Your task to perform on an android device: Search for razer deathadder on bestbuy.com, select the first entry, add it to the cart, then select checkout. Image 0: 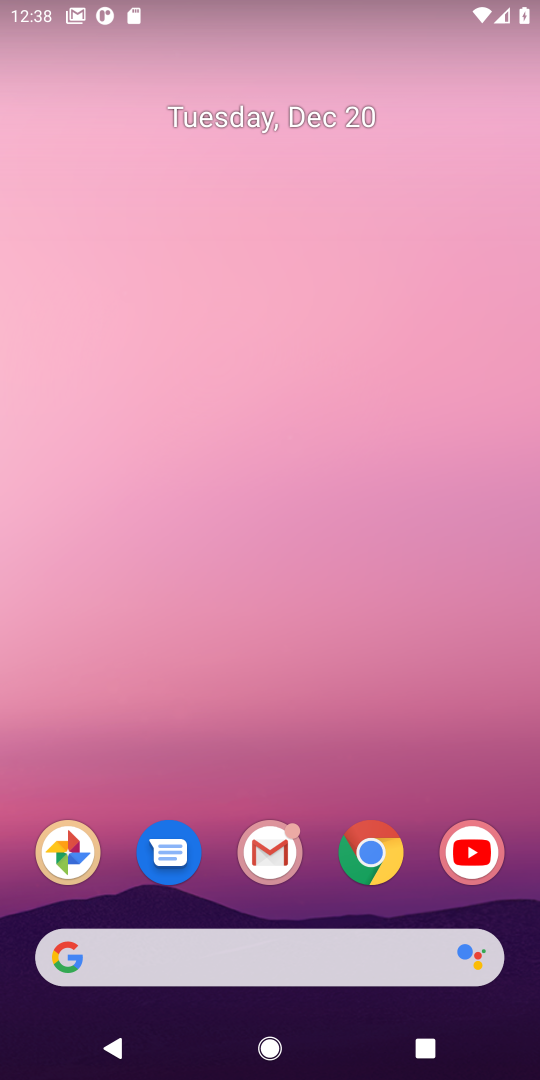
Step 0: click (376, 851)
Your task to perform on an android device: Search for razer deathadder on bestbuy.com, select the first entry, add it to the cart, then select checkout. Image 1: 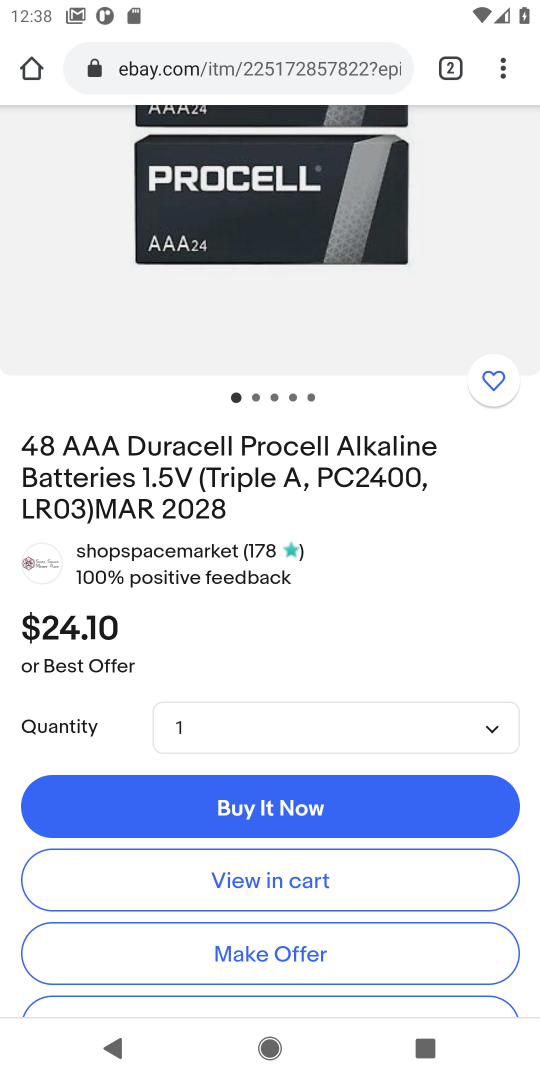
Step 1: click (214, 67)
Your task to perform on an android device: Search for razer deathadder on bestbuy.com, select the first entry, add it to the cart, then select checkout. Image 2: 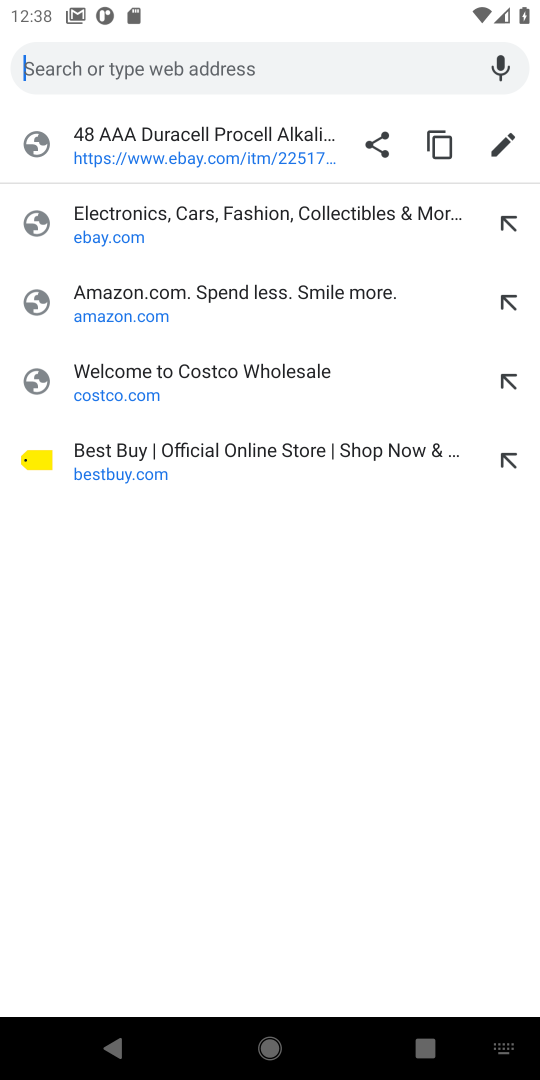
Step 2: click (104, 454)
Your task to perform on an android device: Search for razer deathadder on bestbuy.com, select the first entry, add it to the cart, then select checkout. Image 3: 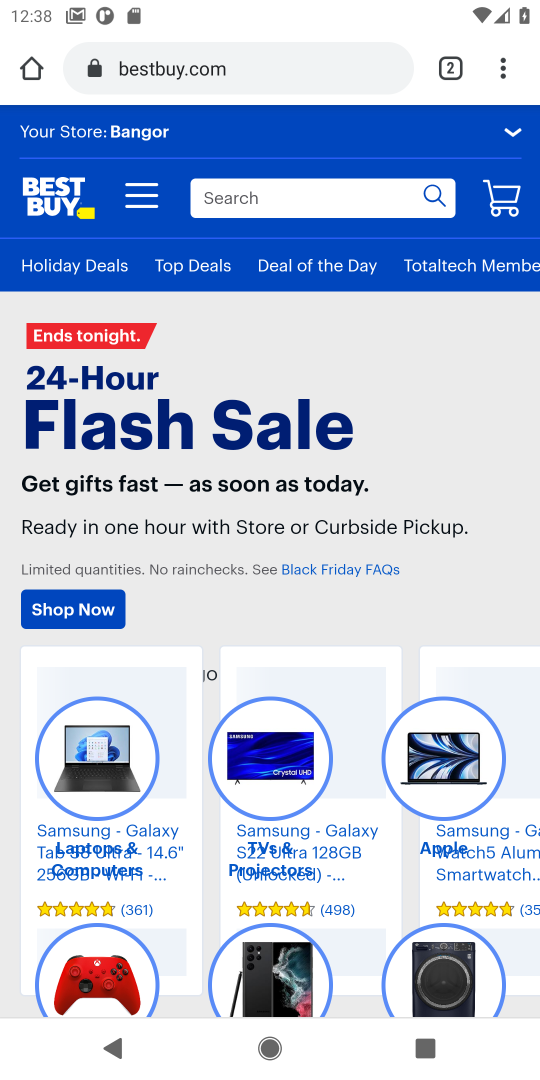
Step 3: click (239, 205)
Your task to perform on an android device: Search for razer deathadder on bestbuy.com, select the first entry, add it to the cart, then select checkout. Image 4: 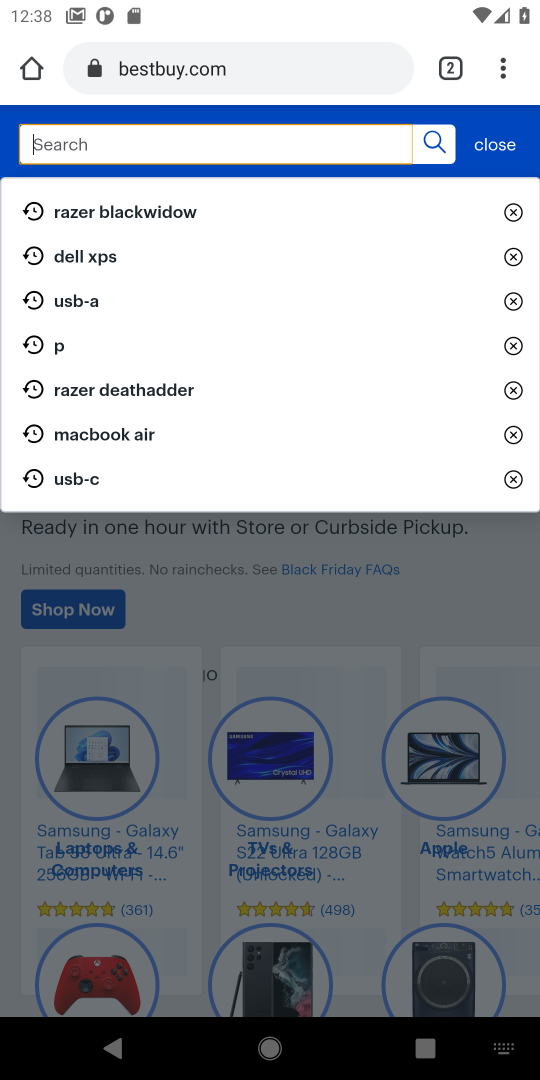
Step 4: type " razer deathadder"
Your task to perform on an android device: Search for razer deathadder on bestbuy.com, select the first entry, add it to the cart, then select checkout. Image 5: 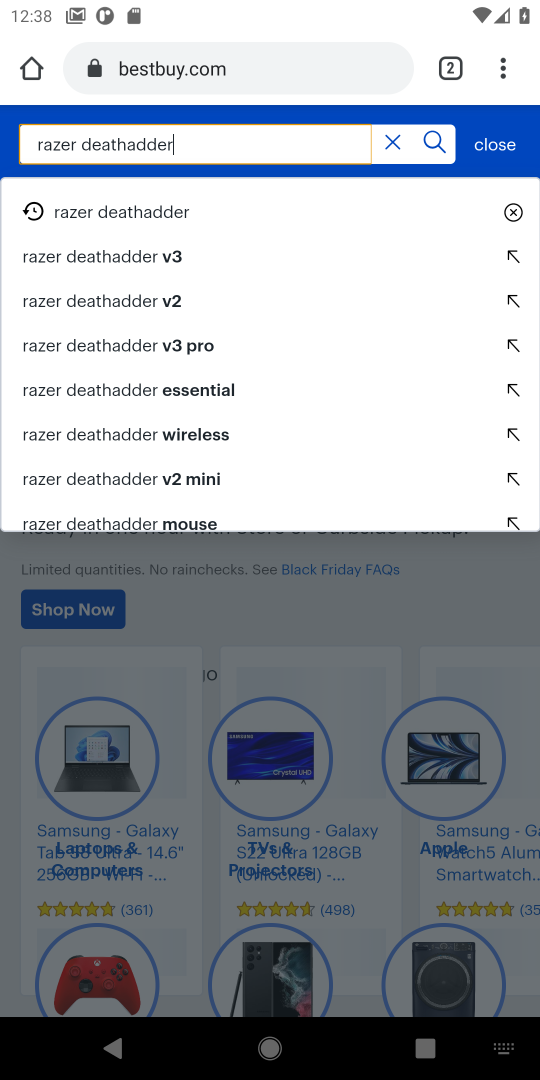
Step 5: click (113, 218)
Your task to perform on an android device: Search for razer deathadder on bestbuy.com, select the first entry, add it to the cart, then select checkout. Image 6: 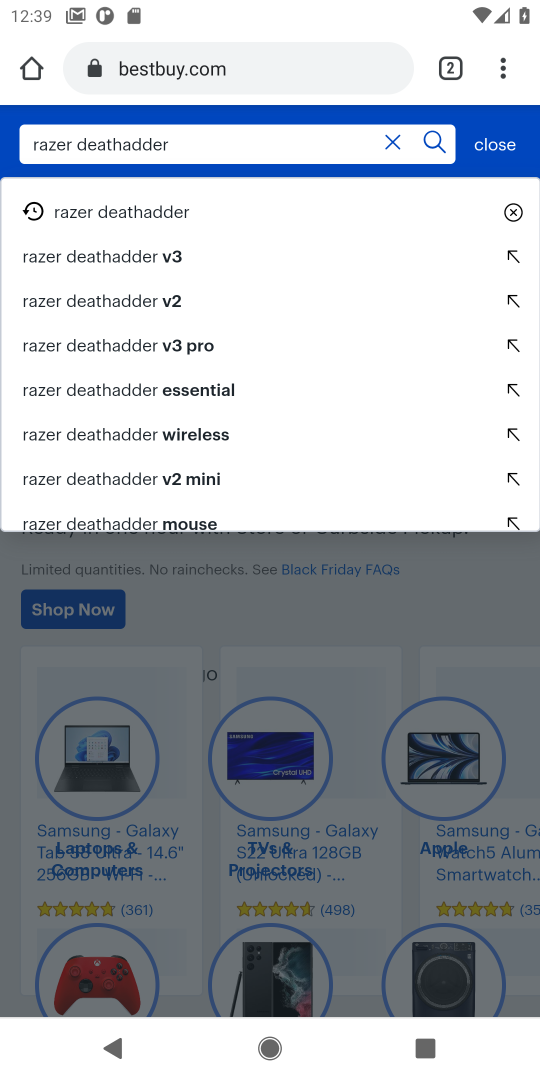
Step 6: click (111, 219)
Your task to perform on an android device: Search for razer deathadder on bestbuy.com, select the first entry, add it to the cart, then select checkout. Image 7: 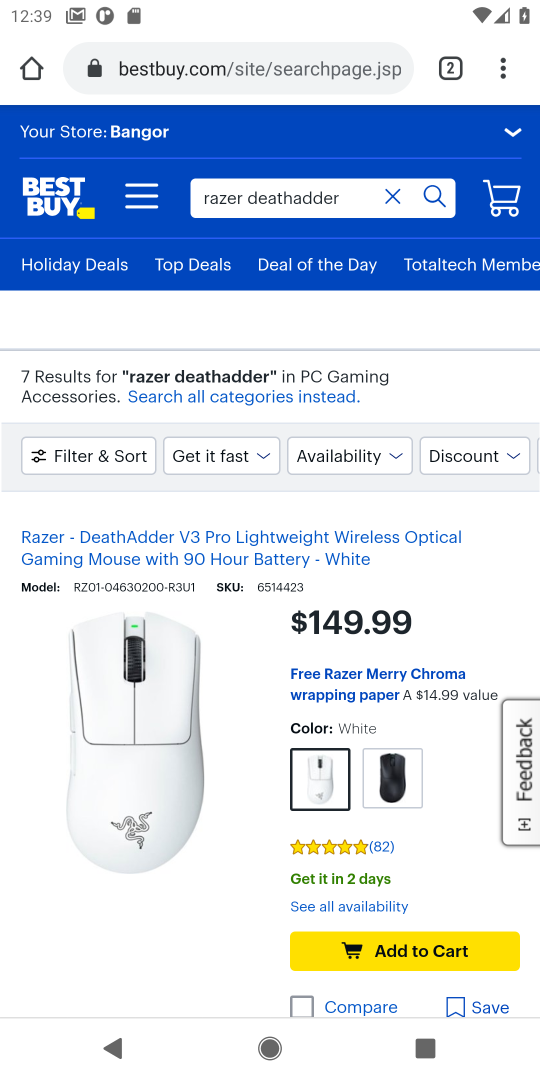
Step 7: click (399, 951)
Your task to perform on an android device: Search for razer deathadder on bestbuy.com, select the first entry, add it to the cart, then select checkout. Image 8: 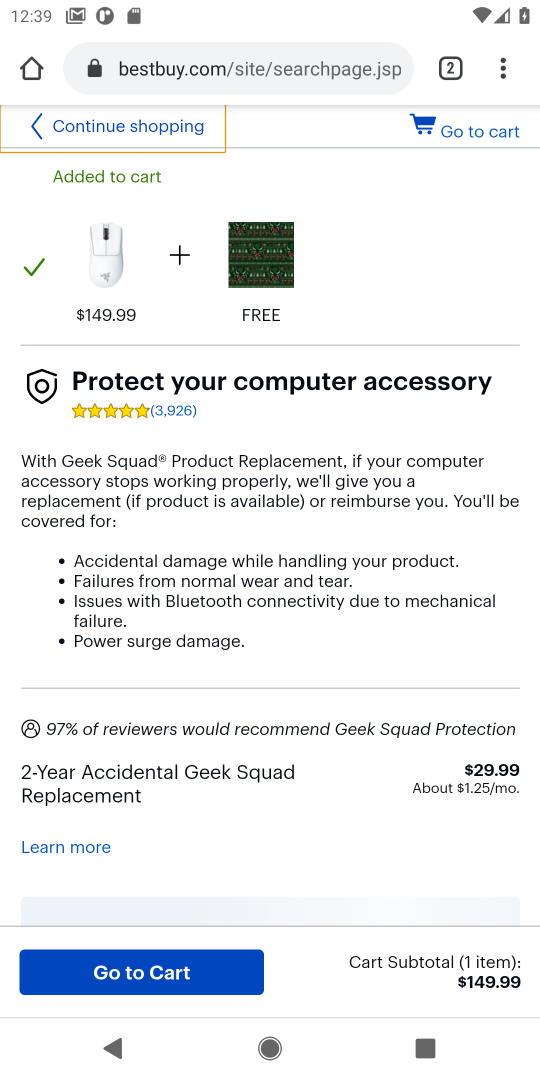
Step 8: click (484, 138)
Your task to perform on an android device: Search for razer deathadder on bestbuy.com, select the first entry, add it to the cart, then select checkout. Image 9: 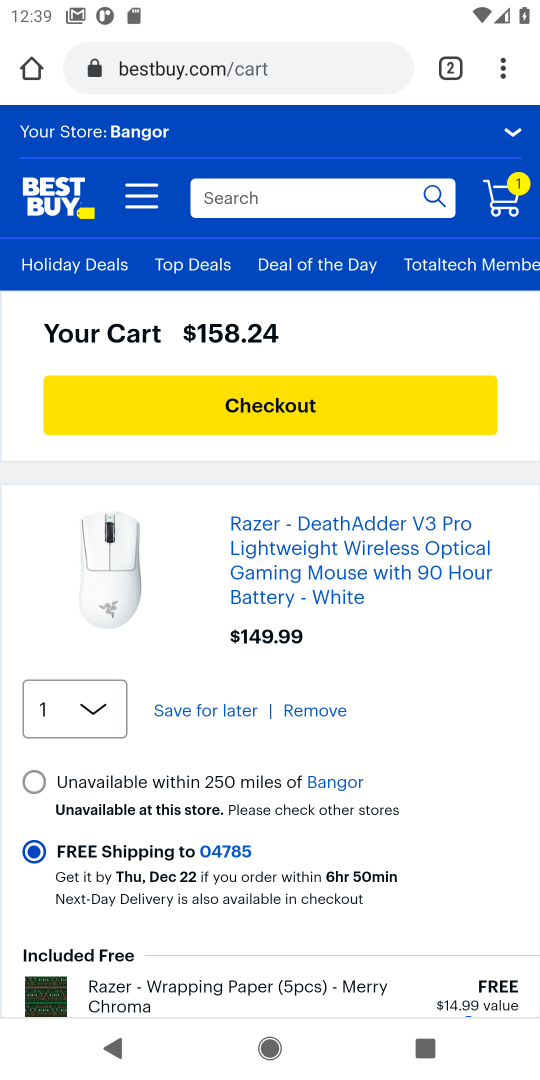
Step 9: click (265, 406)
Your task to perform on an android device: Search for razer deathadder on bestbuy.com, select the first entry, add it to the cart, then select checkout. Image 10: 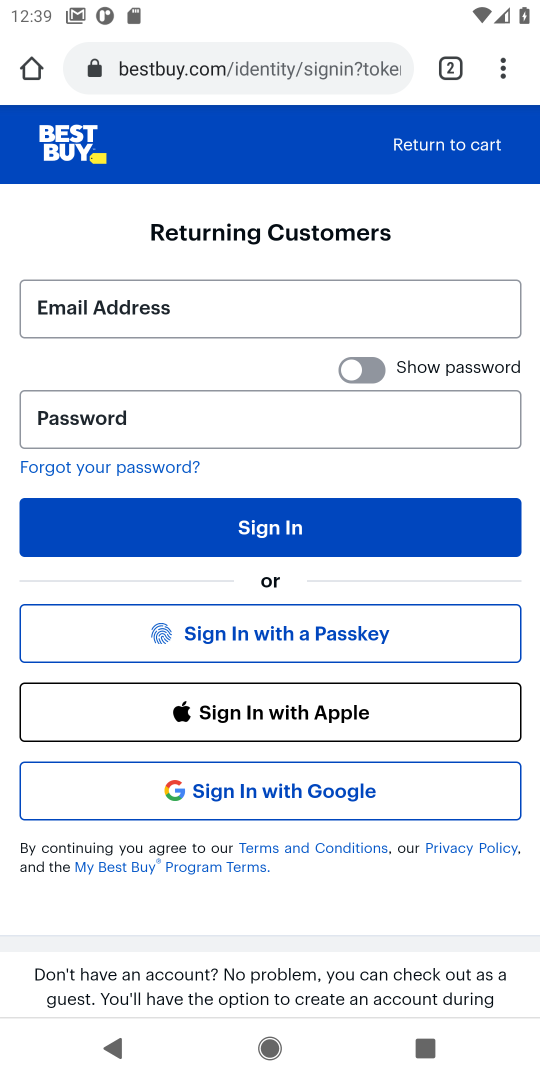
Step 10: task complete